Your task to perform on an android device: Go to location settings Image 0: 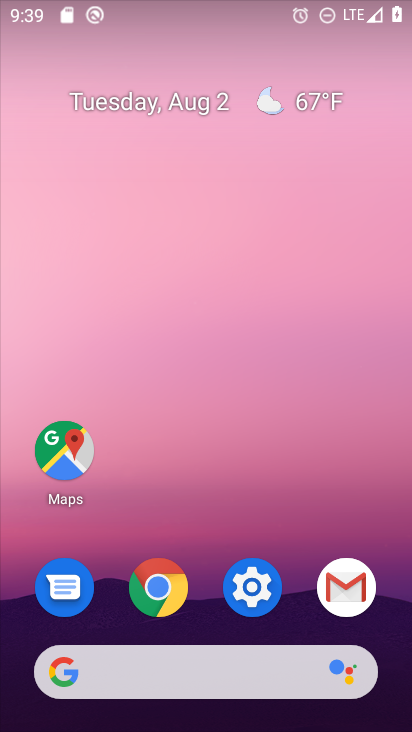
Step 0: click (251, 578)
Your task to perform on an android device: Go to location settings Image 1: 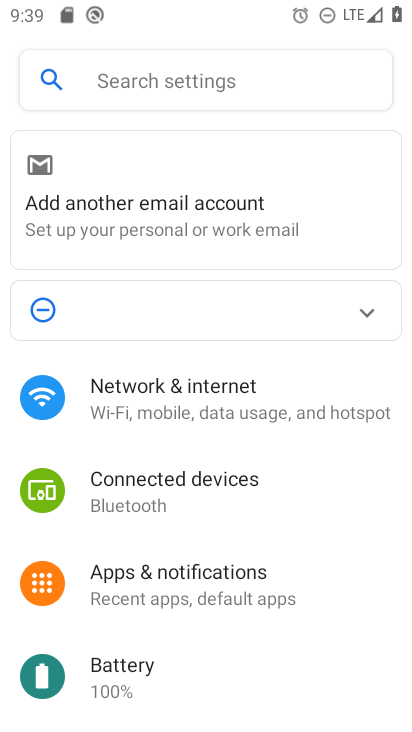
Step 1: click (139, 82)
Your task to perform on an android device: Go to location settings Image 2: 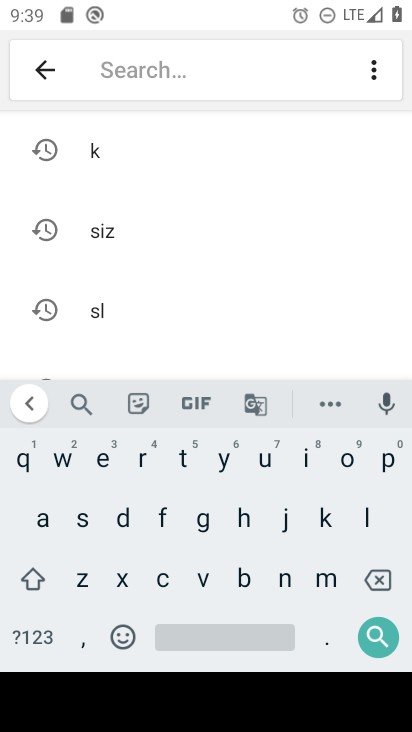
Step 2: click (367, 510)
Your task to perform on an android device: Go to location settings Image 3: 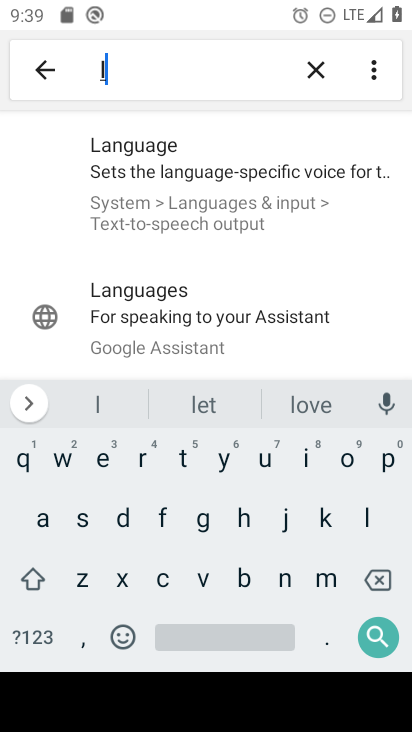
Step 3: click (341, 465)
Your task to perform on an android device: Go to location settings Image 4: 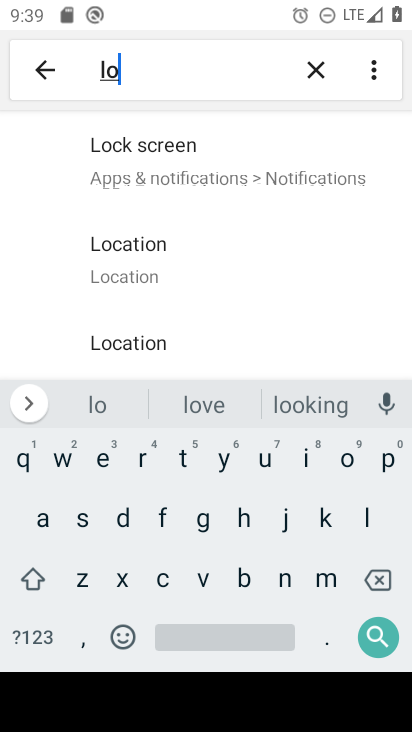
Step 4: click (157, 256)
Your task to perform on an android device: Go to location settings Image 5: 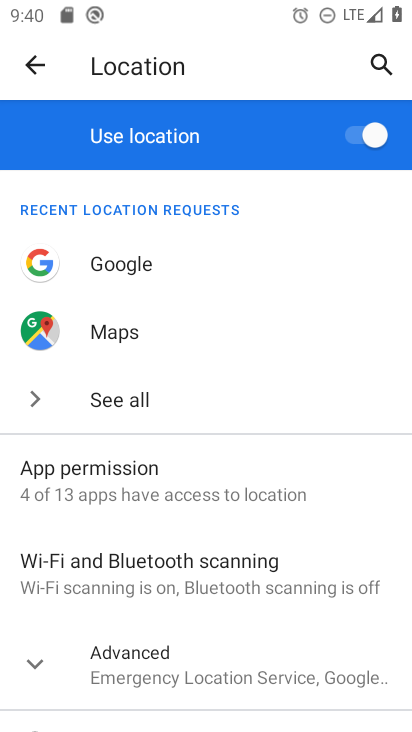
Step 5: task complete